Your task to perform on an android device: Go to ESPN.com Image 0: 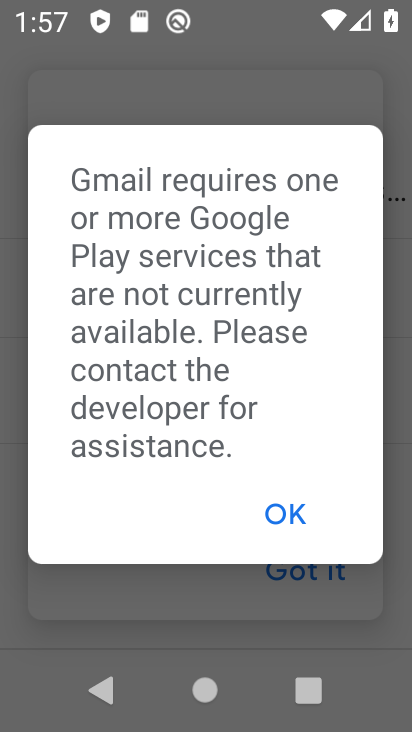
Step 0: press home button
Your task to perform on an android device: Go to ESPN.com Image 1: 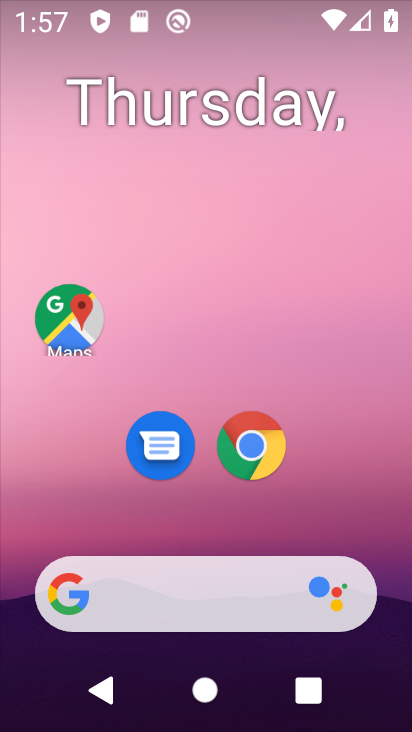
Step 1: click (263, 428)
Your task to perform on an android device: Go to ESPN.com Image 2: 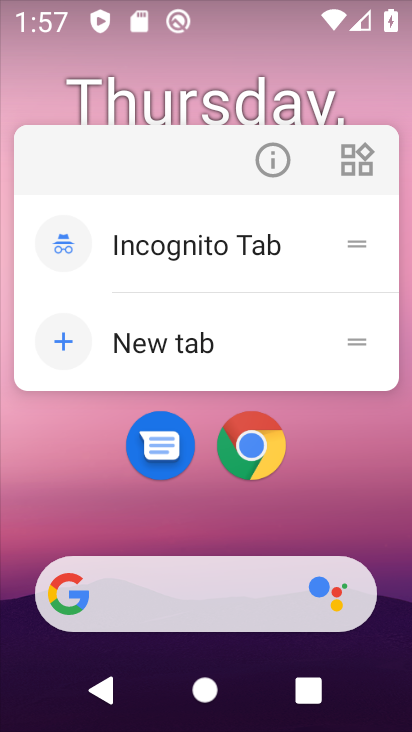
Step 2: click (244, 456)
Your task to perform on an android device: Go to ESPN.com Image 3: 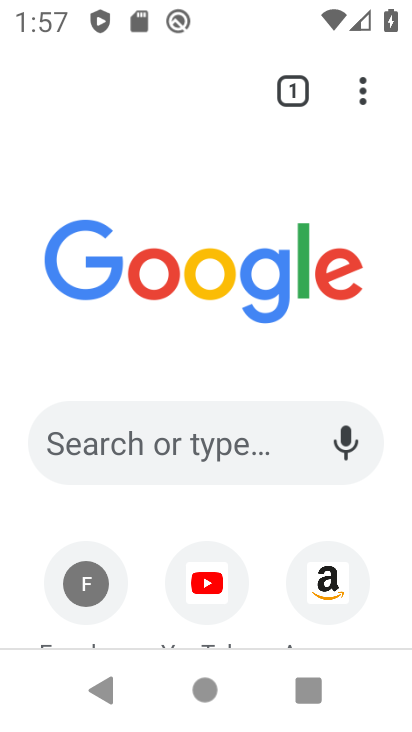
Step 3: drag from (12, 565) to (151, 172)
Your task to perform on an android device: Go to ESPN.com Image 4: 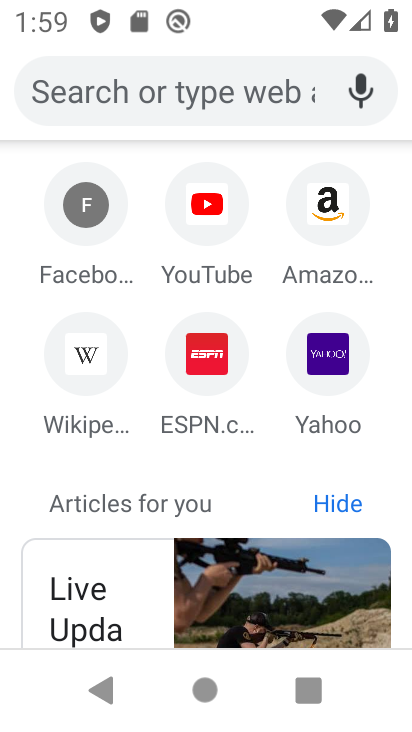
Step 4: click (220, 354)
Your task to perform on an android device: Go to ESPN.com Image 5: 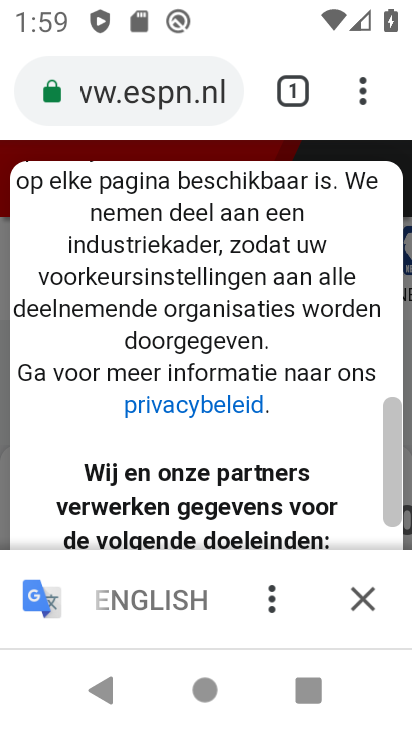
Step 5: task complete